Your task to perform on an android device: open sync settings in chrome Image 0: 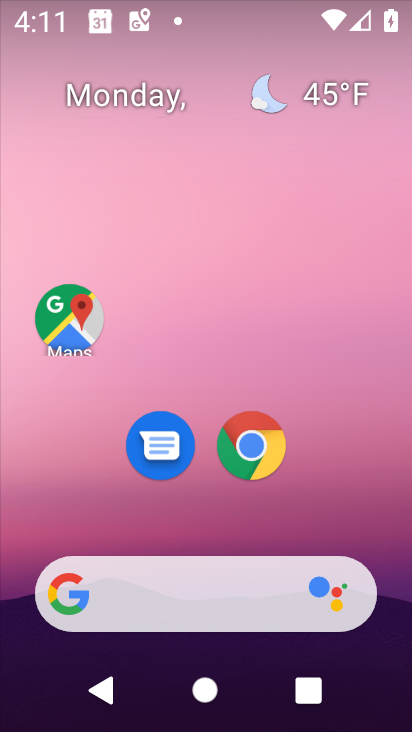
Step 0: click (253, 439)
Your task to perform on an android device: open sync settings in chrome Image 1: 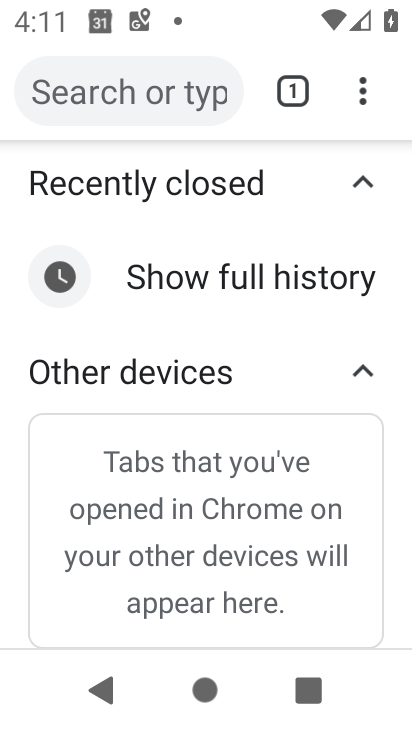
Step 1: click (357, 95)
Your task to perform on an android device: open sync settings in chrome Image 2: 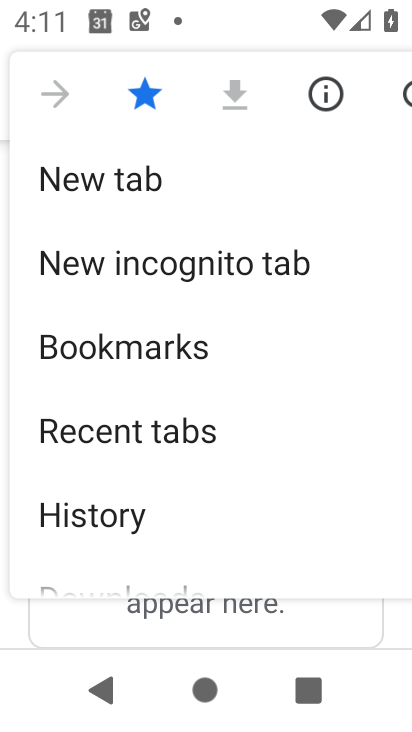
Step 2: drag from (141, 551) to (203, 268)
Your task to perform on an android device: open sync settings in chrome Image 3: 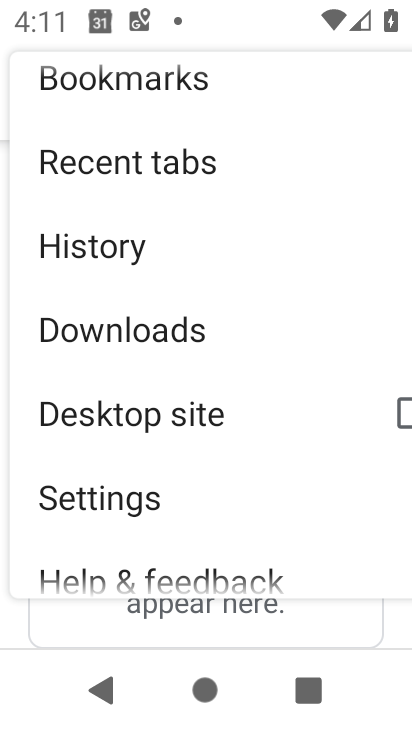
Step 3: click (132, 487)
Your task to perform on an android device: open sync settings in chrome Image 4: 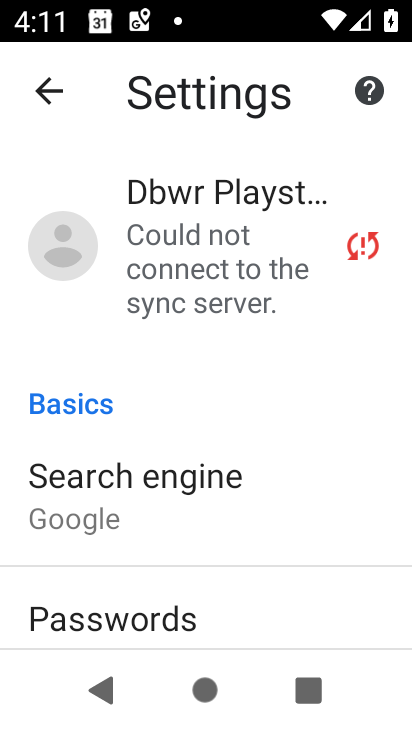
Step 4: click (183, 269)
Your task to perform on an android device: open sync settings in chrome Image 5: 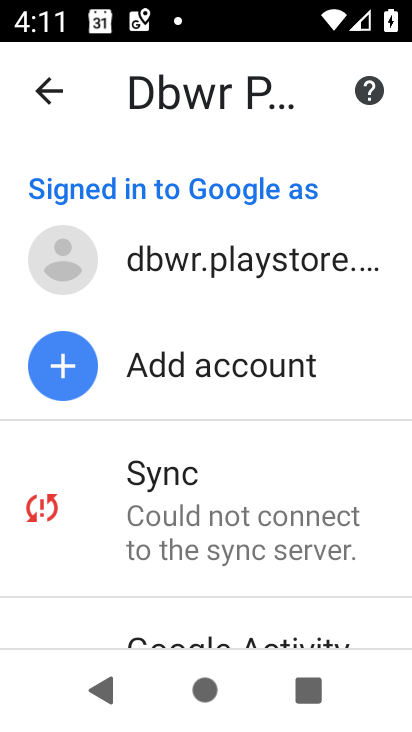
Step 5: click (238, 505)
Your task to perform on an android device: open sync settings in chrome Image 6: 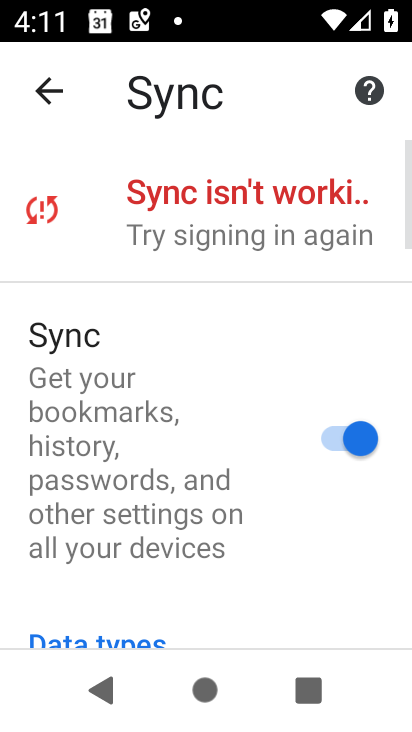
Step 6: task complete